Your task to perform on an android device: Show me popular games on the Play Store Image 0: 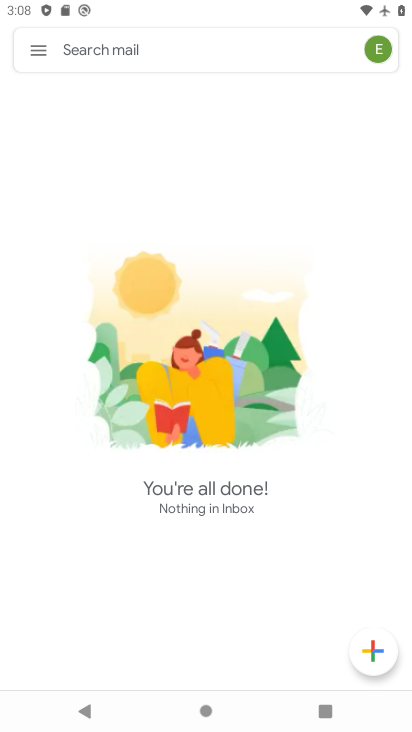
Step 0: press home button
Your task to perform on an android device: Show me popular games on the Play Store Image 1: 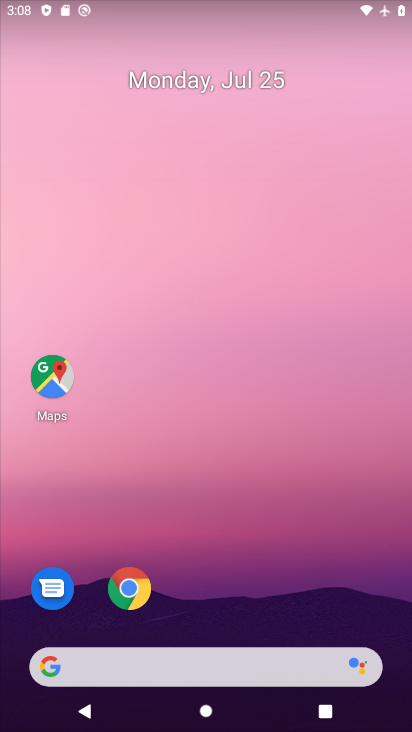
Step 1: drag from (236, 728) to (232, 102)
Your task to perform on an android device: Show me popular games on the Play Store Image 2: 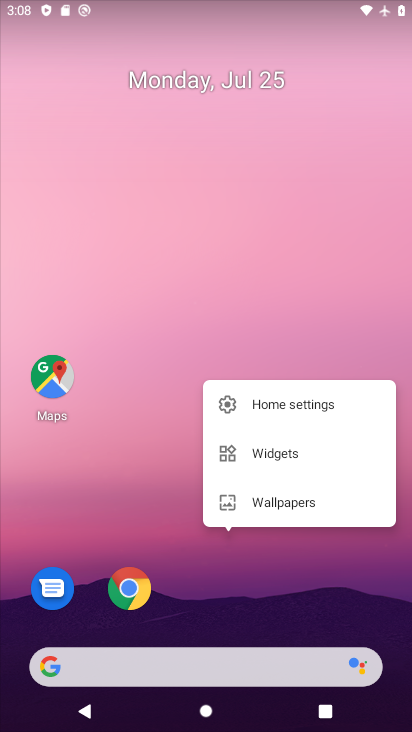
Step 2: click (228, 303)
Your task to perform on an android device: Show me popular games on the Play Store Image 3: 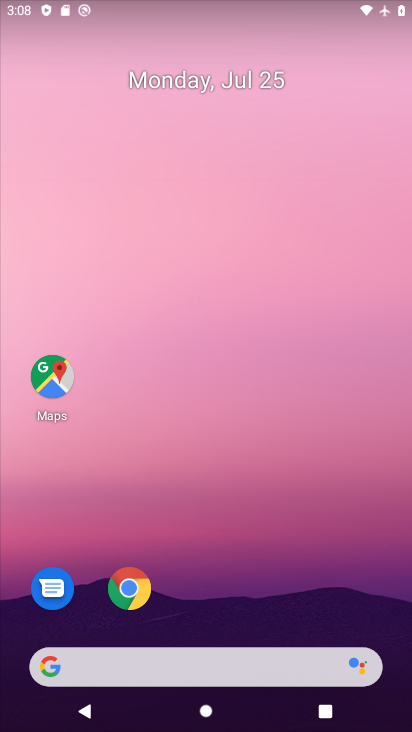
Step 3: press home button
Your task to perform on an android device: Show me popular games on the Play Store Image 4: 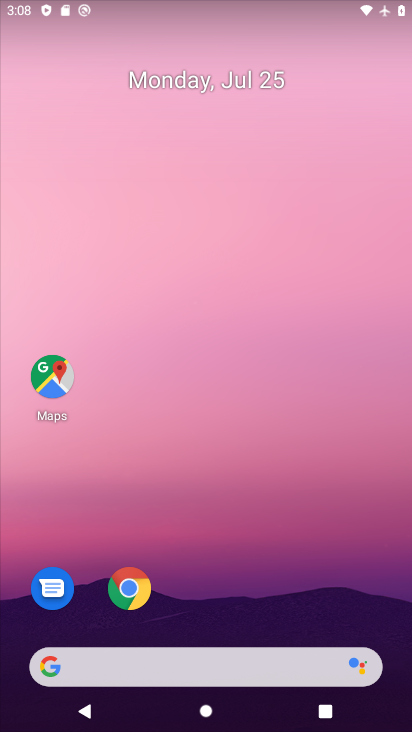
Step 4: drag from (226, 715) to (226, 71)
Your task to perform on an android device: Show me popular games on the Play Store Image 5: 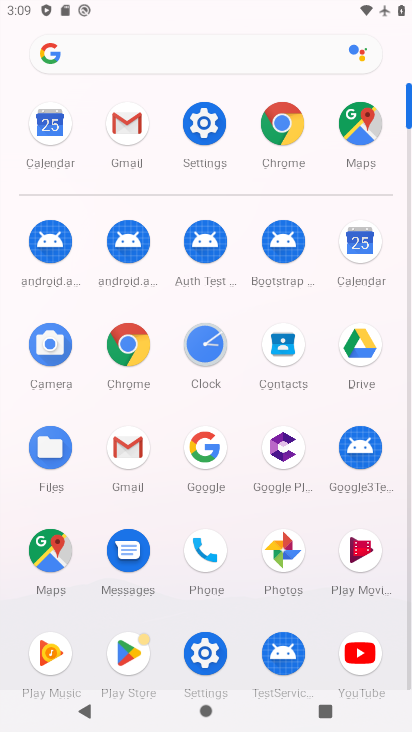
Step 5: click (124, 654)
Your task to perform on an android device: Show me popular games on the Play Store Image 6: 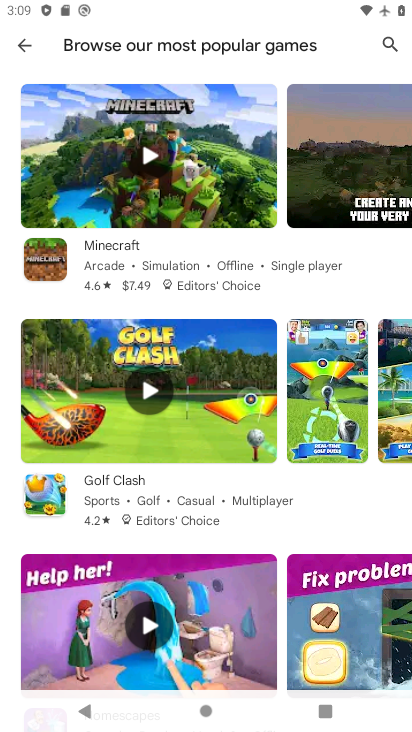
Step 6: task complete